Your task to perform on an android device: Clear the cart on bestbuy.com. Add "asus rog" to the cart on bestbuy.com Image 0: 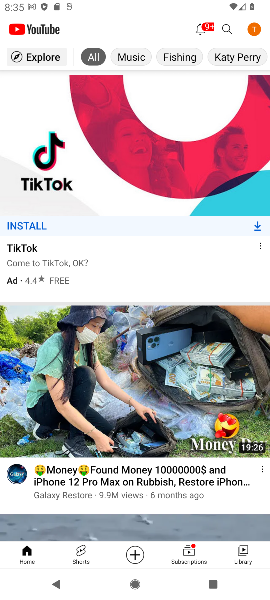
Step 0: press home button
Your task to perform on an android device: Clear the cart on bestbuy.com. Add "asus rog" to the cart on bestbuy.com Image 1: 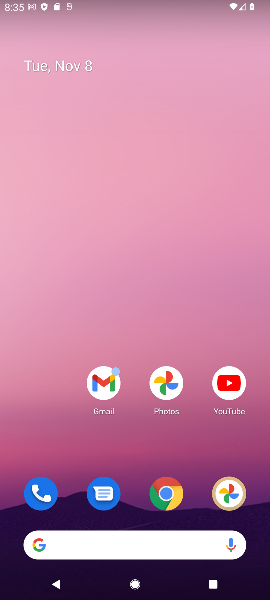
Step 1: click (167, 495)
Your task to perform on an android device: Clear the cart on bestbuy.com. Add "asus rog" to the cart on bestbuy.com Image 2: 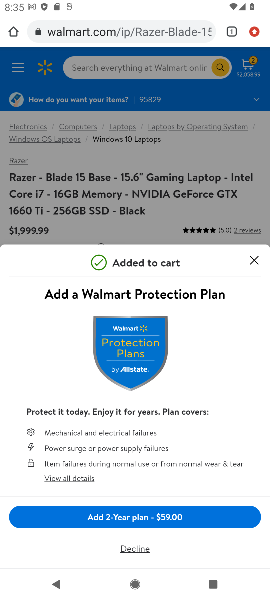
Step 2: click (117, 37)
Your task to perform on an android device: Clear the cart on bestbuy.com. Add "asus rog" to the cart on bestbuy.com Image 3: 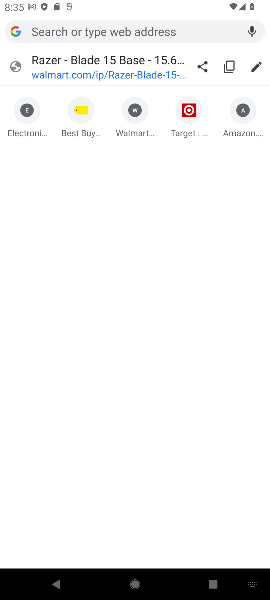
Step 3: click (84, 114)
Your task to perform on an android device: Clear the cart on bestbuy.com. Add "asus rog" to the cart on bestbuy.com Image 4: 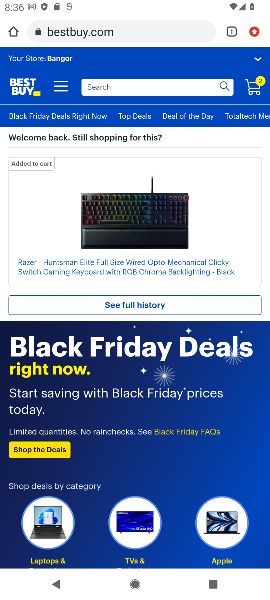
Step 4: click (253, 87)
Your task to perform on an android device: Clear the cart on bestbuy.com. Add "asus rog" to the cart on bestbuy.com Image 5: 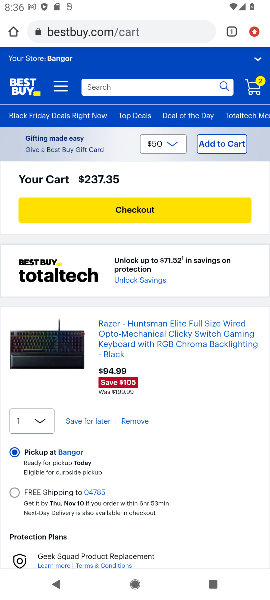
Step 5: click (132, 425)
Your task to perform on an android device: Clear the cart on bestbuy.com. Add "asus rog" to the cart on bestbuy.com Image 6: 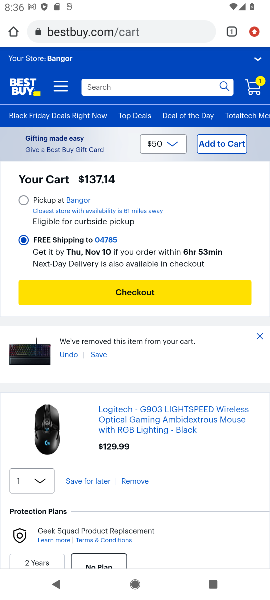
Step 6: click (127, 486)
Your task to perform on an android device: Clear the cart on bestbuy.com. Add "asus rog" to the cart on bestbuy.com Image 7: 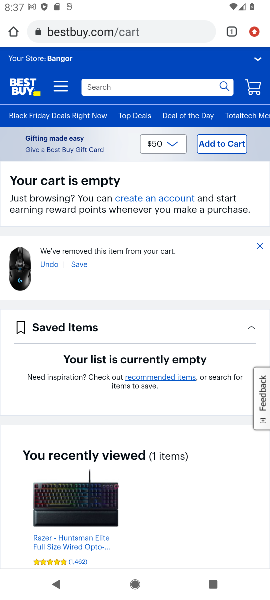
Step 7: click (112, 87)
Your task to perform on an android device: Clear the cart on bestbuy.com. Add "asus rog" to the cart on bestbuy.com Image 8: 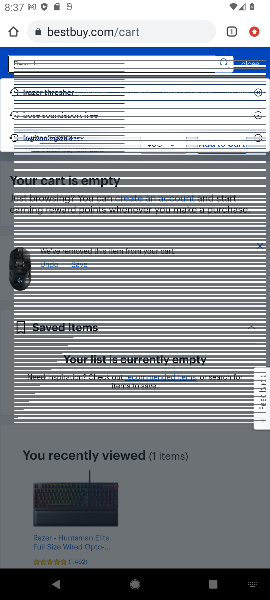
Step 8: type "asus rog"
Your task to perform on an android device: Clear the cart on bestbuy.com. Add "asus rog" to the cart on bestbuy.com Image 9: 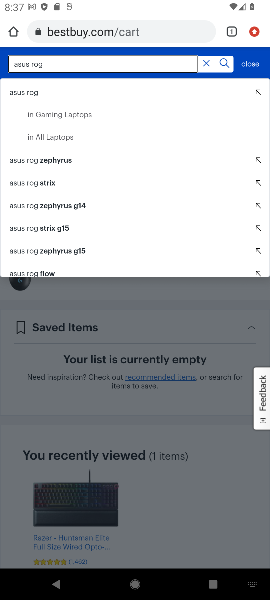
Step 9: click (28, 95)
Your task to perform on an android device: Clear the cart on bestbuy.com. Add "asus rog" to the cart on bestbuy.com Image 10: 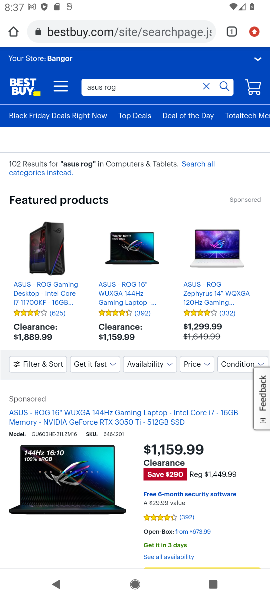
Step 10: drag from (69, 446) to (68, 310)
Your task to perform on an android device: Clear the cart on bestbuy.com. Add "asus rog" to the cart on bestbuy.com Image 11: 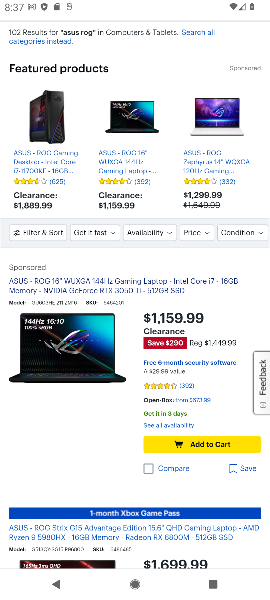
Step 11: click (202, 442)
Your task to perform on an android device: Clear the cart on bestbuy.com. Add "asus rog" to the cart on bestbuy.com Image 12: 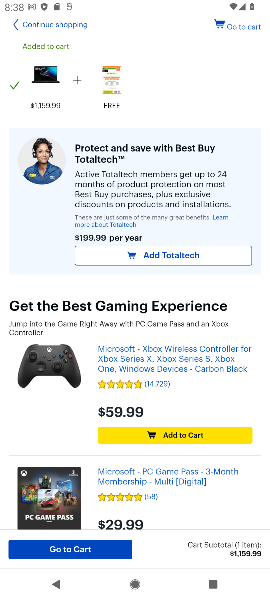
Step 12: task complete